Your task to perform on an android device: find photos in the google photos app Image 0: 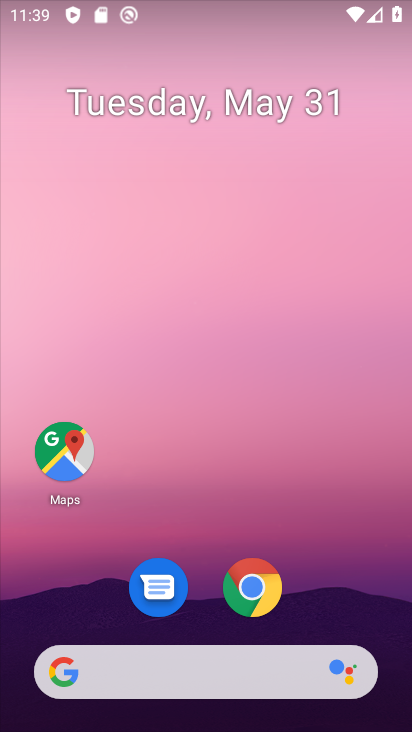
Step 0: click (237, 593)
Your task to perform on an android device: find photos in the google photos app Image 1: 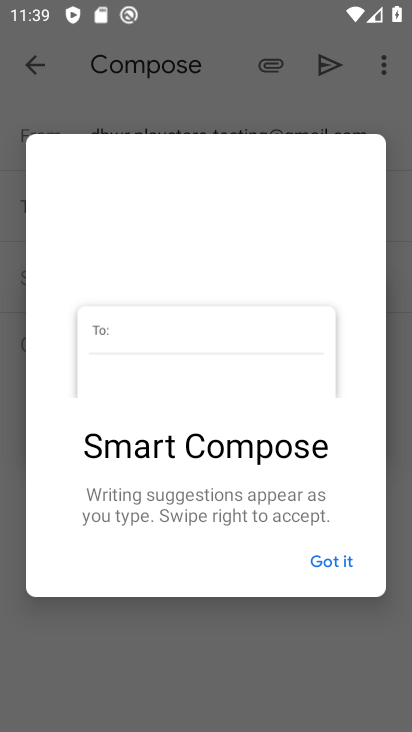
Step 1: click (334, 572)
Your task to perform on an android device: find photos in the google photos app Image 2: 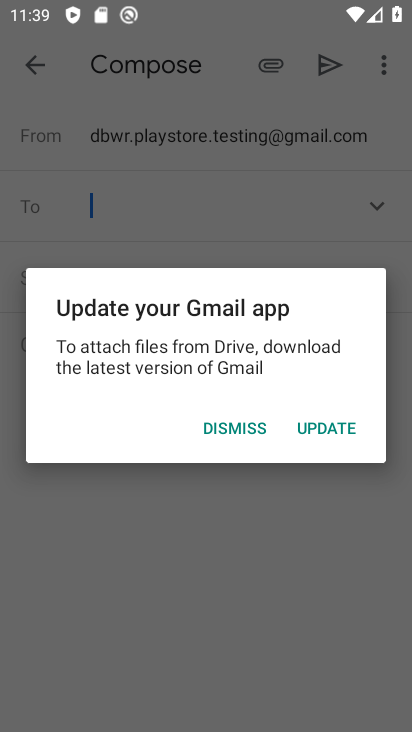
Step 2: press home button
Your task to perform on an android device: find photos in the google photos app Image 3: 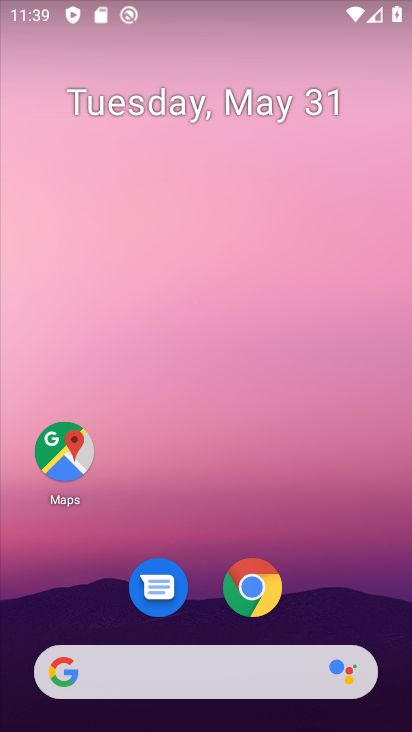
Step 3: drag from (311, 611) to (216, 146)
Your task to perform on an android device: find photos in the google photos app Image 4: 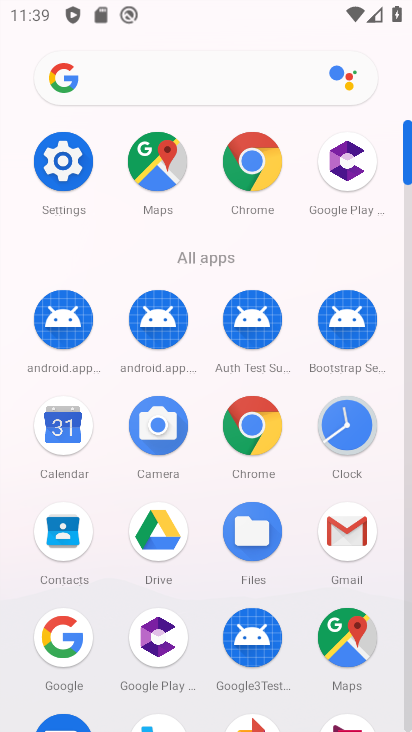
Step 4: click (410, 699)
Your task to perform on an android device: find photos in the google photos app Image 5: 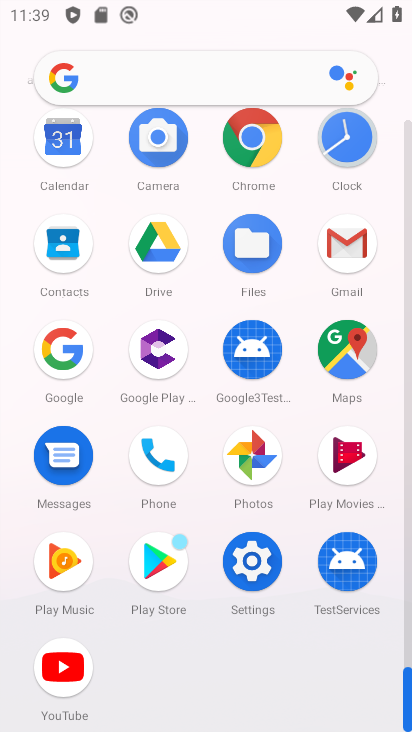
Step 5: click (269, 464)
Your task to perform on an android device: find photos in the google photos app Image 6: 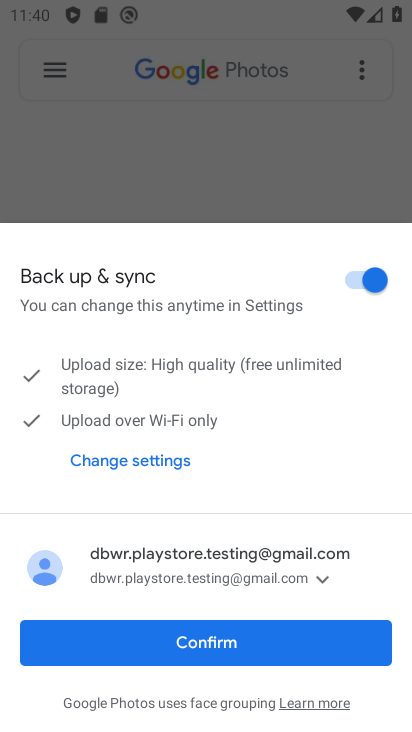
Step 6: click (251, 657)
Your task to perform on an android device: find photos in the google photos app Image 7: 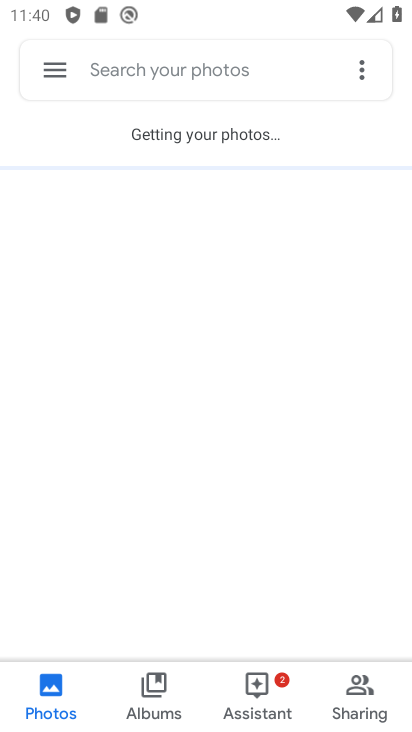
Step 7: task complete